Your task to perform on an android device: check out phone information Image 0: 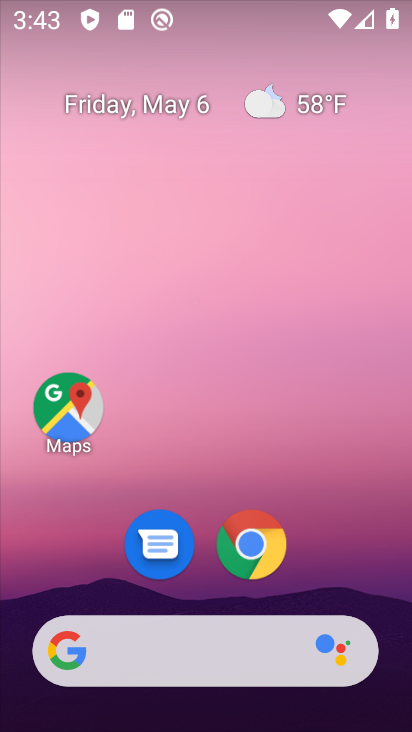
Step 0: drag from (81, 608) to (264, 29)
Your task to perform on an android device: check out phone information Image 1: 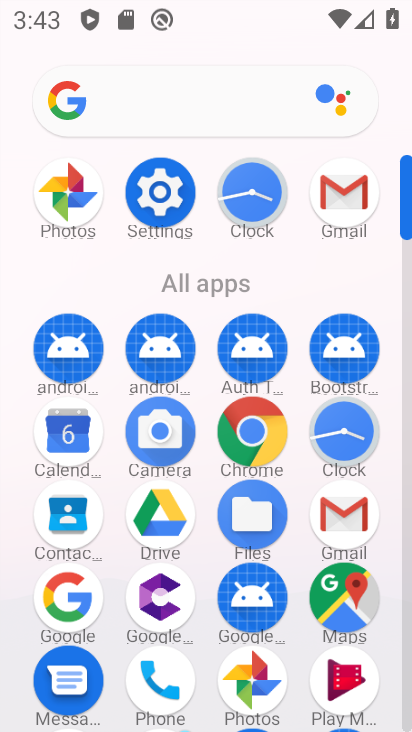
Step 1: drag from (189, 581) to (262, 288)
Your task to perform on an android device: check out phone information Image 2: 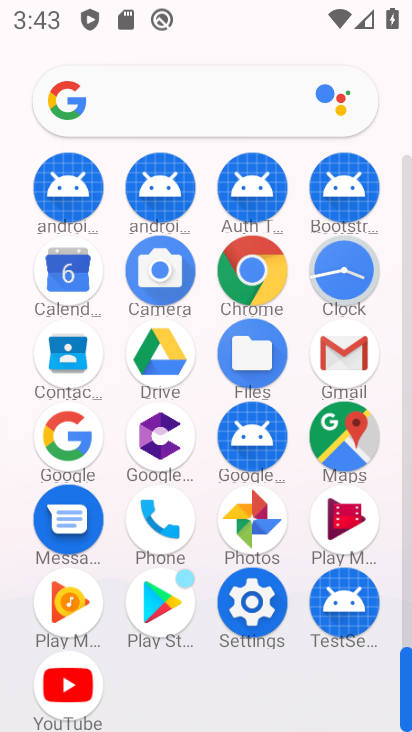
Step 2: click (241, 604)
Your task to perform on an android device: check out phone information Image 3: 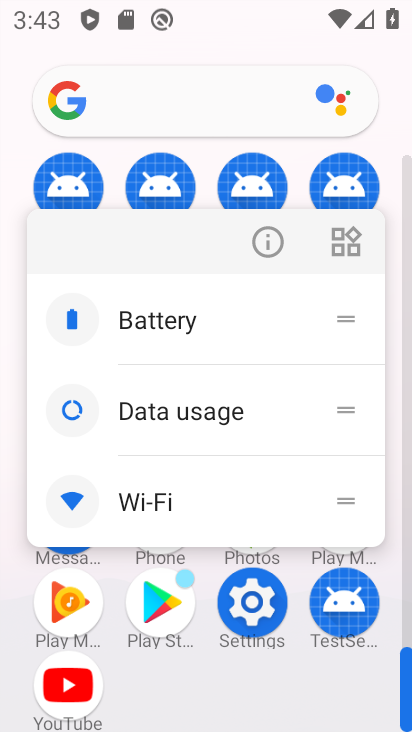
Step 3: click (269, 607)
Your task to perform on an android device: check out phone information Image 4: 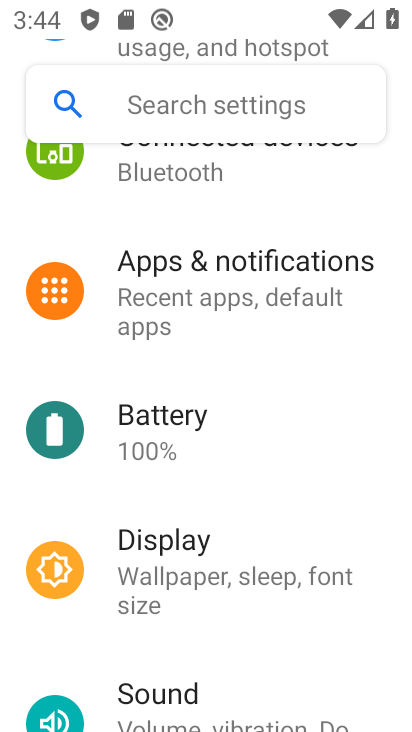
Step 4: drag from (147, 620) to (285, 143)
Your task to perform on an android device: check out phone information Image 5: 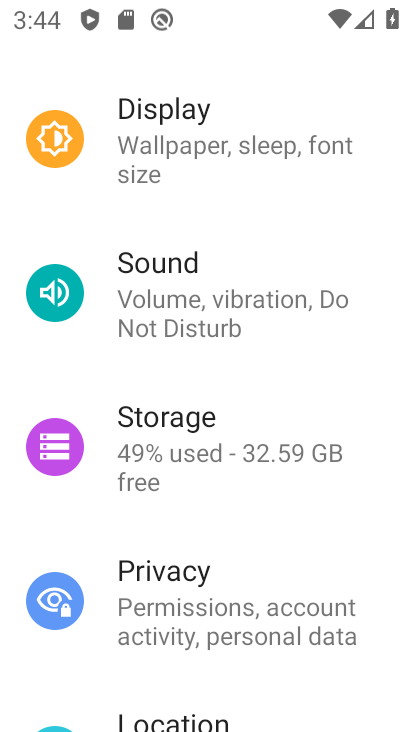
Step 5: drag from (134, 644) to (320, 109)
Your task to perform on an android device: check out phone information Image 6: 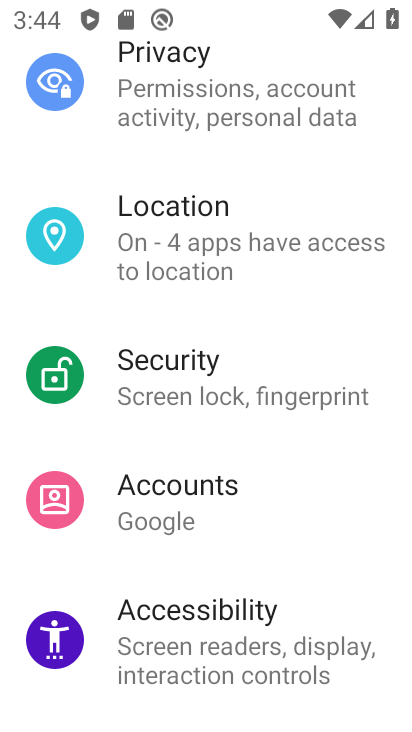
Step 6: drag from (200, 627) to (315, 136)
Your task to perform on an android device: check out phone information Image 7: 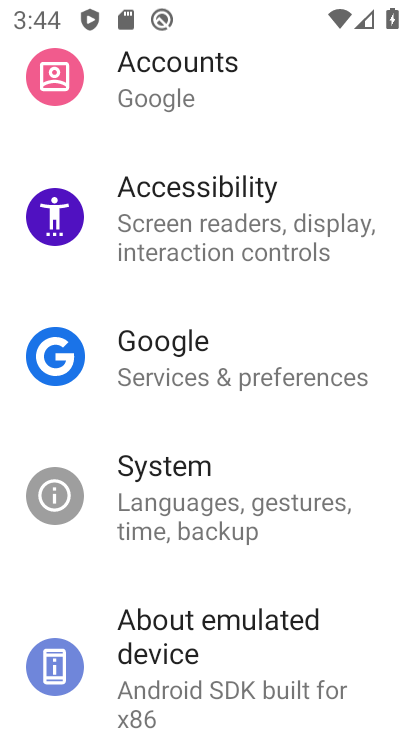
Step 7: drag from (187, 657) to (297, 150)
Your task to perform on an android device: check out phone information Image 8: 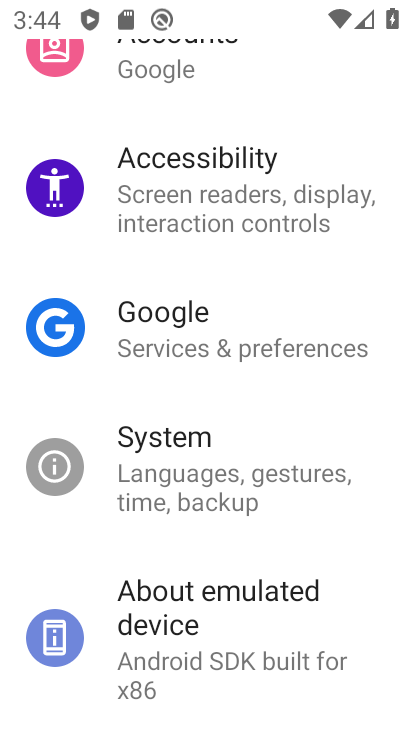
Step 8: click (235, 634)
Your task to perform on an android device: check out phone information Image 9: 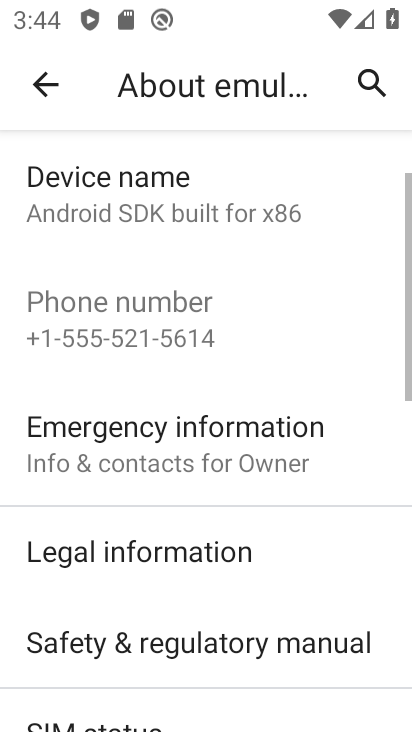
Step 9: task complete